Your task to perform on an android device: change the clock display to digital Image 0: 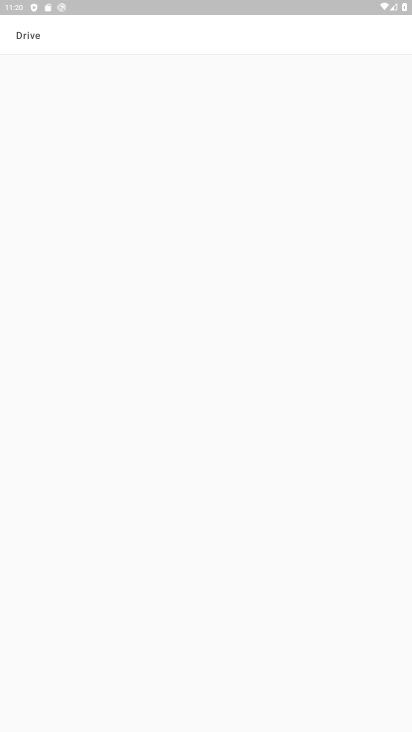
Step 0: press home button
Your task to perform on an android device: change the clock display to digital Image 1: 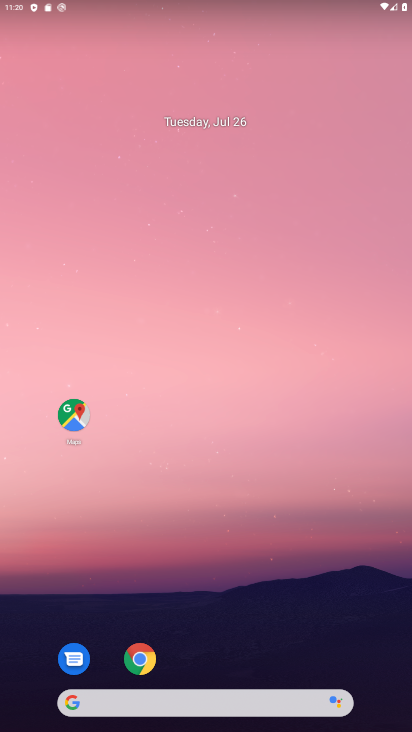
Step 1: drag from (267, 664) to (290, 160)
Your task to perform on an android device: change the clock display to digital Image 2: 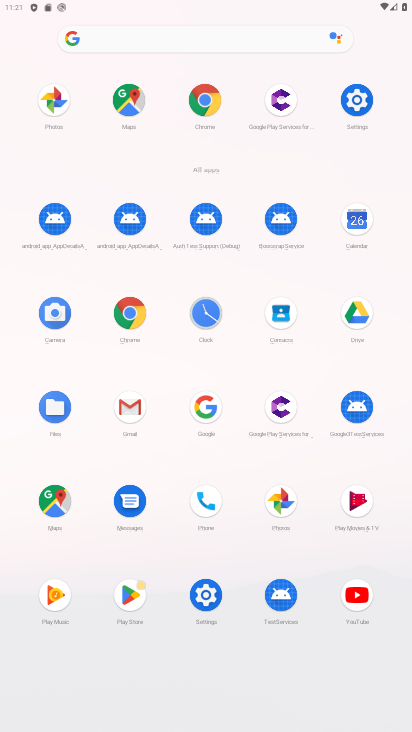
Step 2: click (208, 329)
Your task to perform on an android device: change the clock display to digital Image 3: 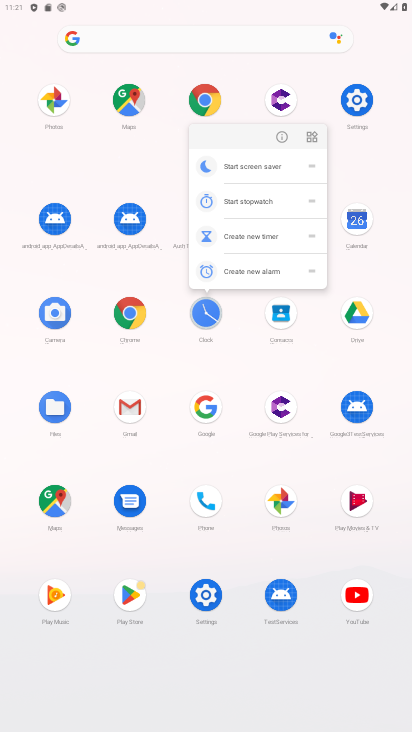
Step 3: click (208, 323)
Your task to perform on an android device: change the clock display to digital Image 4: 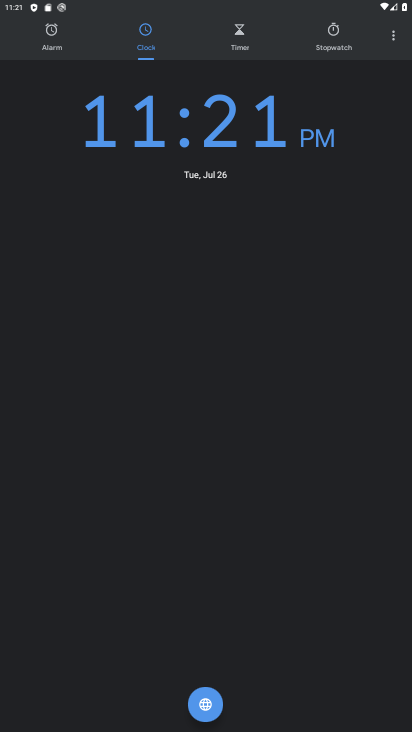
Step 4: click (395, 42)
Your task to perform on an android device: change the clock display to digital Image 5: 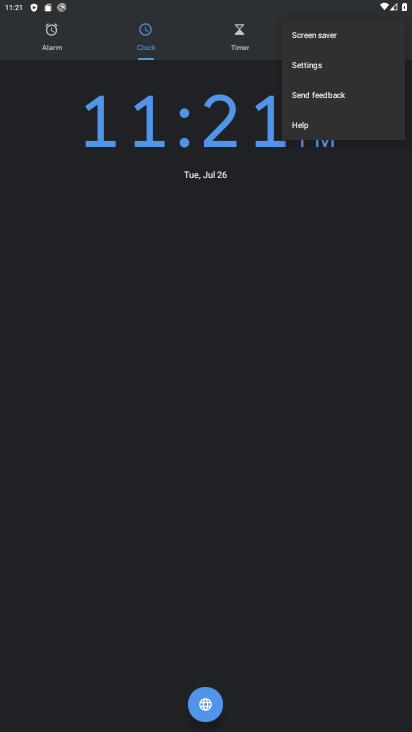
Step 5: click (327, 71)
Your task to perform on an android device: change the clock display to digital Image 6: 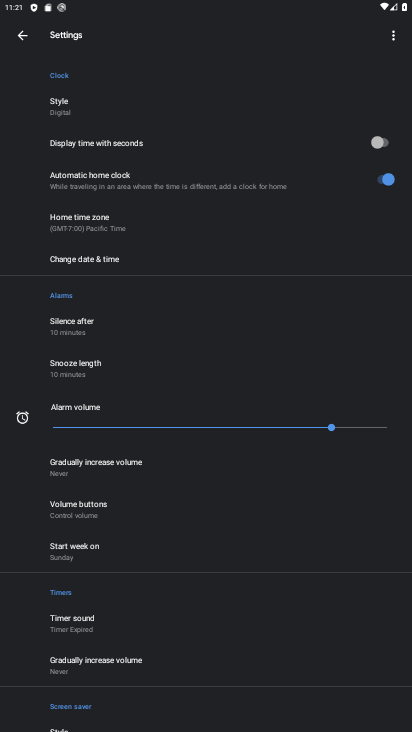
Step 6: click (80, 111)
Your task to perform on an android device: change the clock display to digital Image 7: 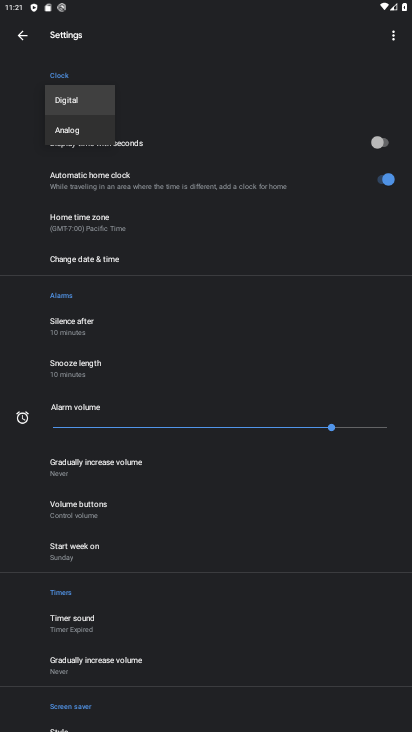
Step 7: task complete